Your task to perform on an android device: Open calendar and show me the third week of next month Image 0: 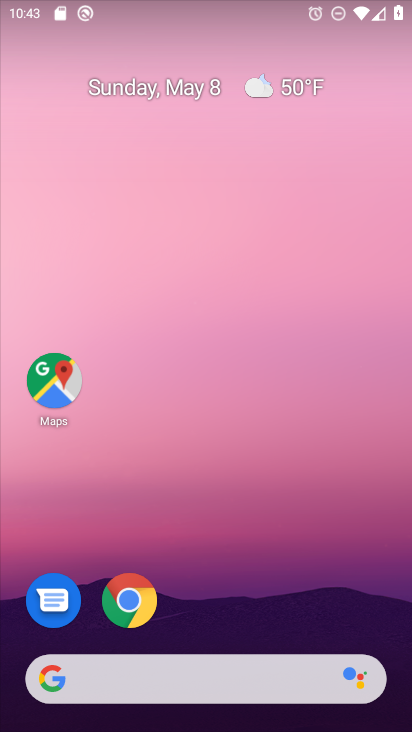
Step 0: drag from (208, 726) to (260, 205)
Your task to perform on an android device: Open calendar and show me the third week of next month Image 1: 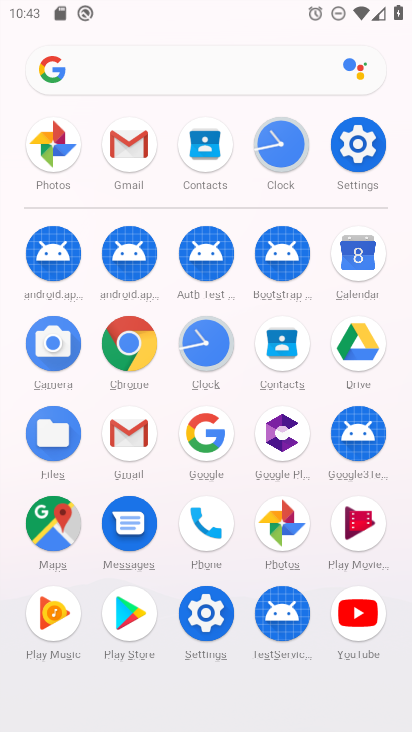
Step 1: click (360, 253)
Your task to perform on an android device: Open calendar and show me the third week of next month Image 2: 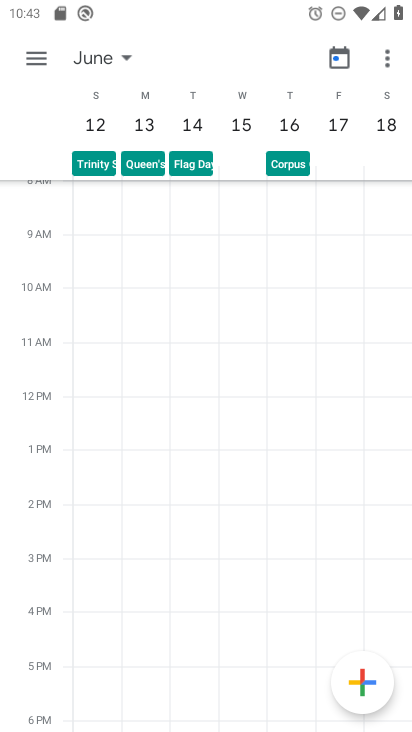
Step 2: click (127, 55)
Your task to perform on an android device: Open calendar and show me the third week of next month Image 3: 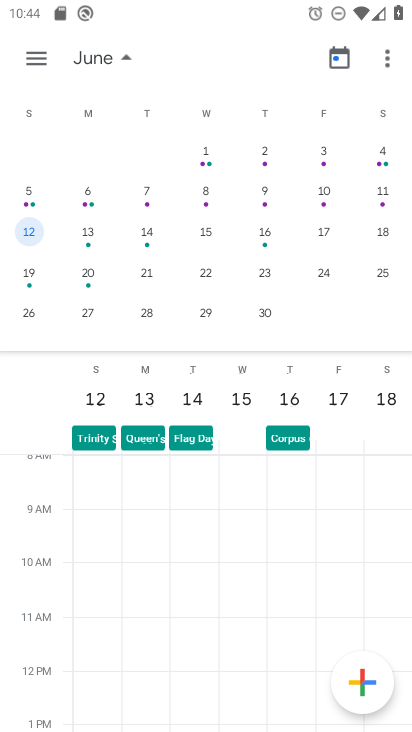
Step 3: click (28, 267)
Your task to perform on an android device: Open calendar and show me the third week of next month Image 4: 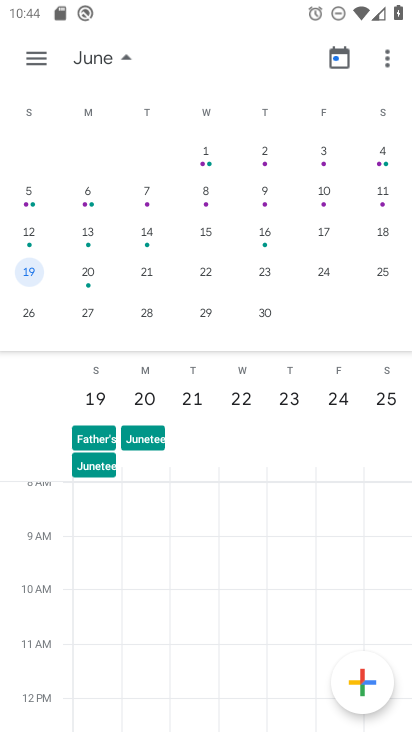
Step 4: task complete